Your task to perform on an android device: turn off javascript in the chrome app Image 0: 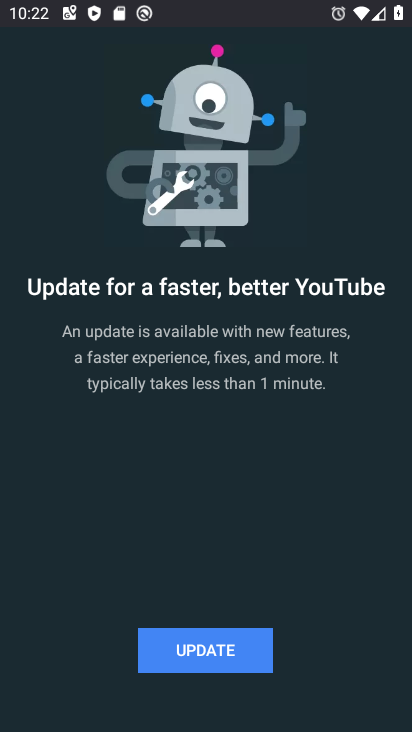
Step 0: press home button
Your task to perform on an android device: turn off javascript in the chrome app Image 1: 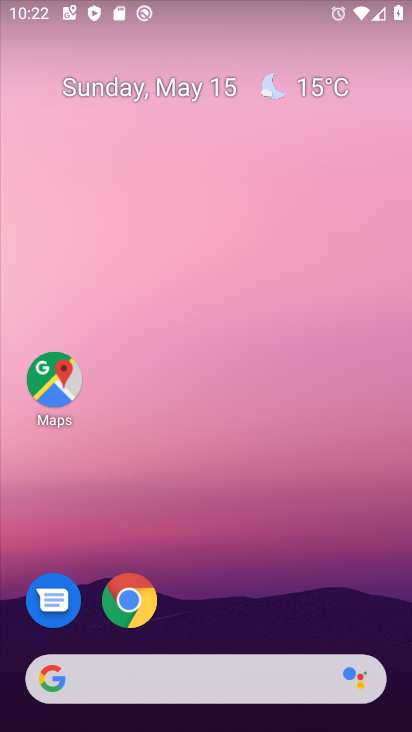
Step 1: drag from (383, 594) to (382, 130)
Your task to perform on an android device: turn off javascript in the chrome app Image 2: 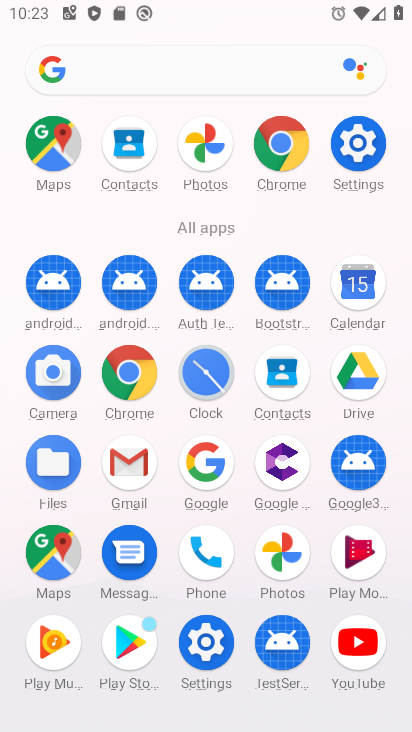
Step 2: click (294, 150)
Your task to perform on an android device: turn off javascript in the chrome app Image 3: 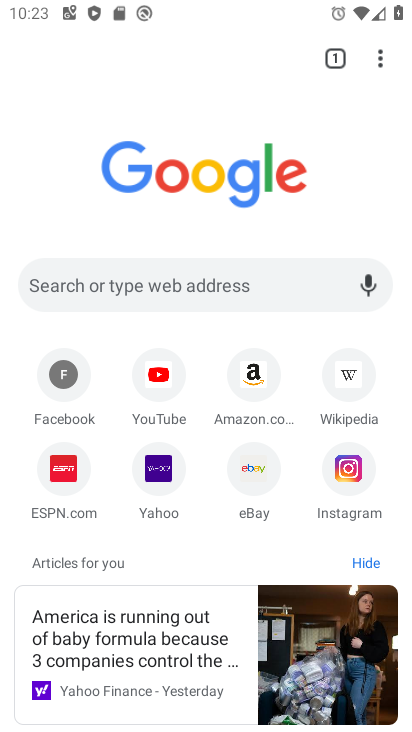
Step 3: click (381, 59)
Your task to perform on an android device: turn off javascript in the chrome app Image 4: 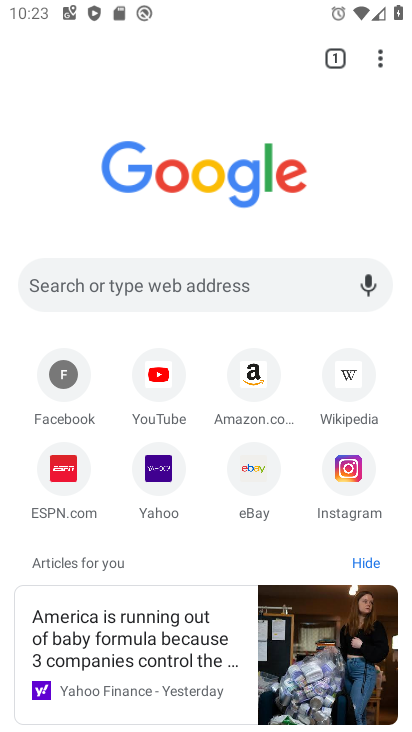
Step 4: click (379, 62)
Your task to perform on an android device: turn off javascript in the chrome app Image 5: 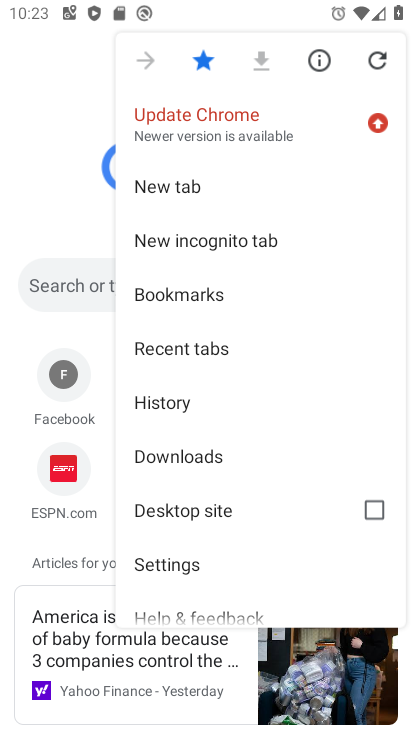
Step 5: click (184, 565)
Your task to perform on an android device: turn off javascript in the chrome app Image 6: 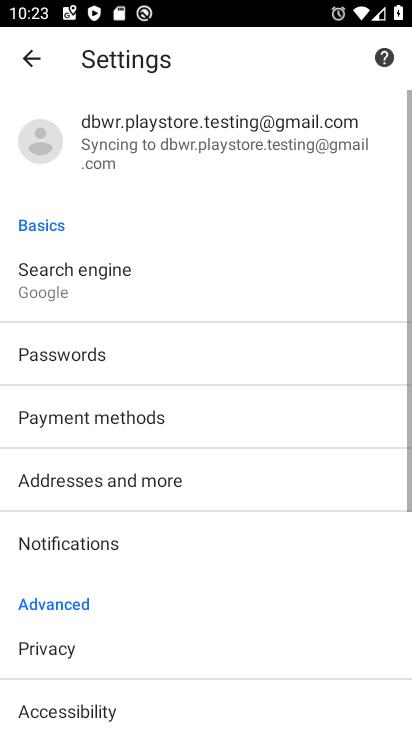
Step 6: drag from (244, 644) to (270, 475)
Your task to perform on an android device: turn off javascript in the chrome app Image 7: 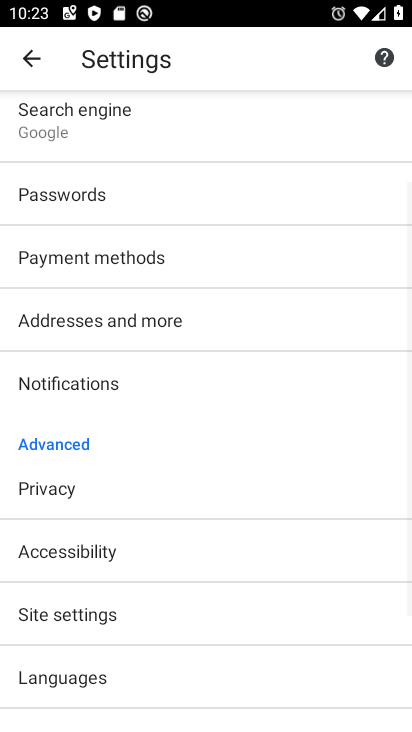
Step 7: drag from (313, 544) to (322, 478)
Your task to perform on an android device: turn off javascript in the chrome app Image 8: 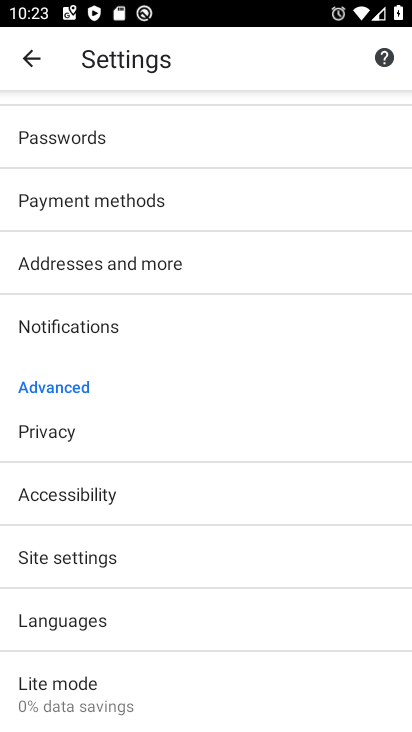
Step 8: drag from (333, 660) to (328, 482)
Your task to perform on an android device: turn off javascript in the chrome app Image 9: 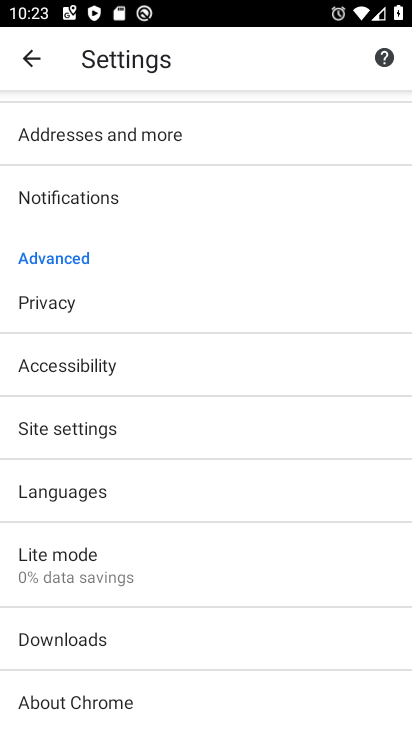
Step 9: drag from (269, 660) to (272, 481)
Your task to perform on an android device: turn off javascript in the chrome app Image 10: 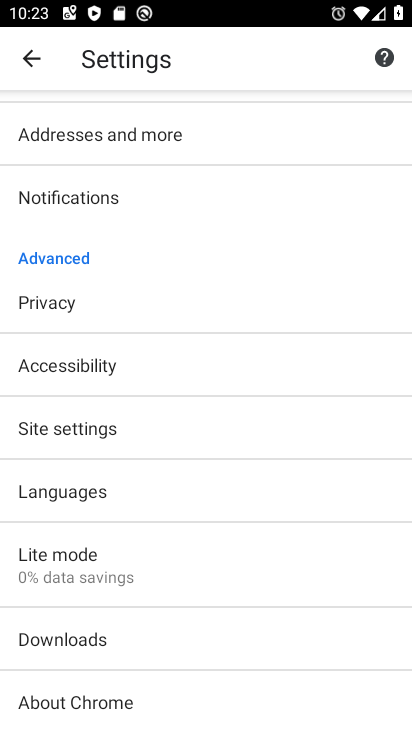
Step 10: click (213, 426)
Your task to perform on an android device: turn off javascript in the chrome app Image 11: 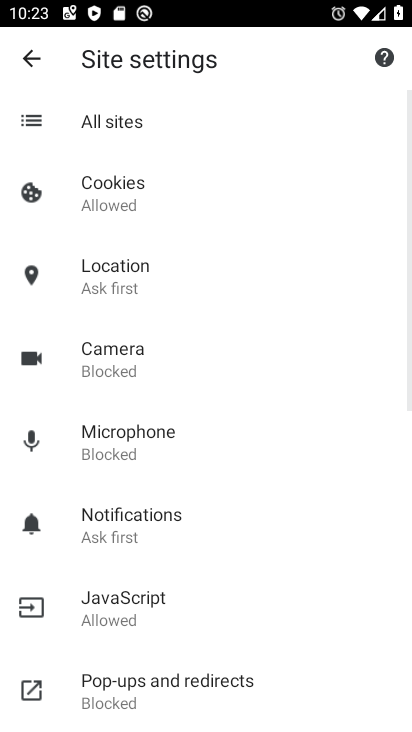
Step 11: drag from (309, 634) to (322, 465)
Your task to perform on an android device: turn off javascript in the chrome app Image 12: 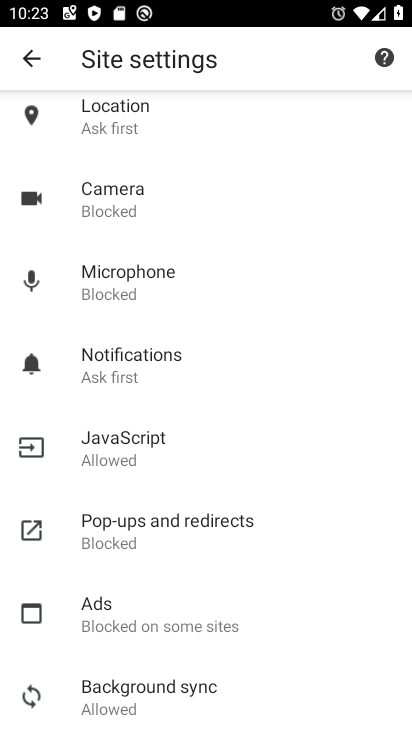
Step 12: drag from (323, 666) to (331, 491)
Your task to perform on an android device: turn off javascript in the chrome app Image 13: 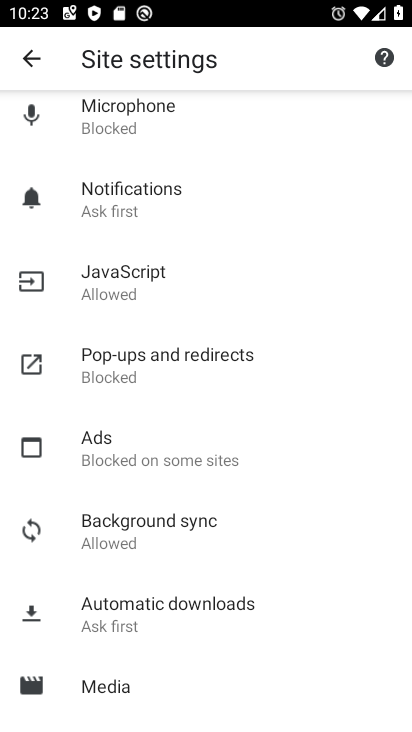
Step 13: drag from (333, 680) to (335, 481)
Your task to perform on an android device: turn off javascript in the chrome app Image 14: 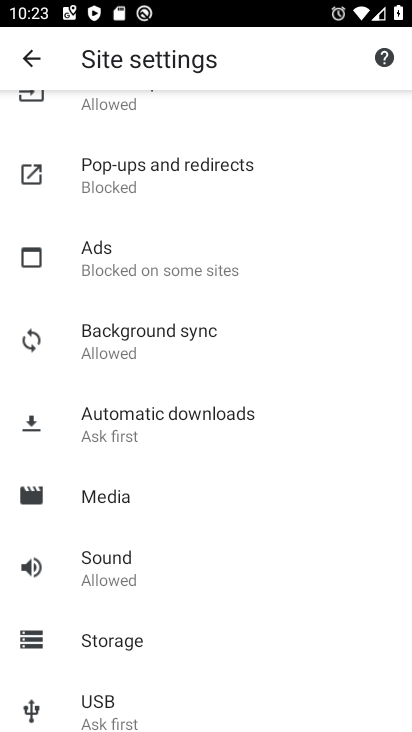
Step 14: drag from (312, 683) to (317, 494)
Your task to perform on an android device: turn off javascript in the chrome app Image 15: 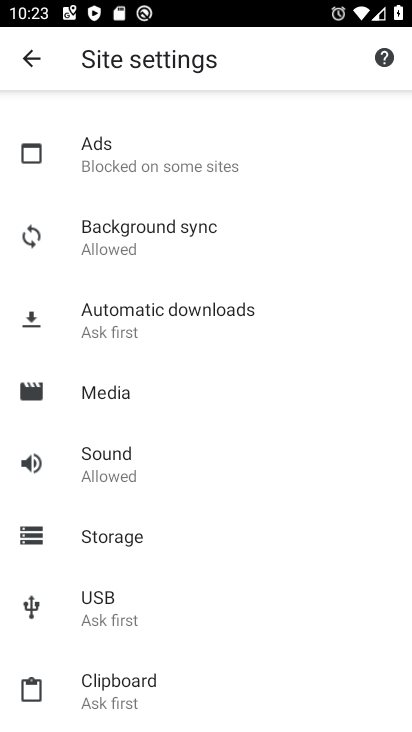
Step 15: drag from (317, 267) to (316, 405)
Your task to perform on an android device: turn off javascript in the chrome app Image 16: 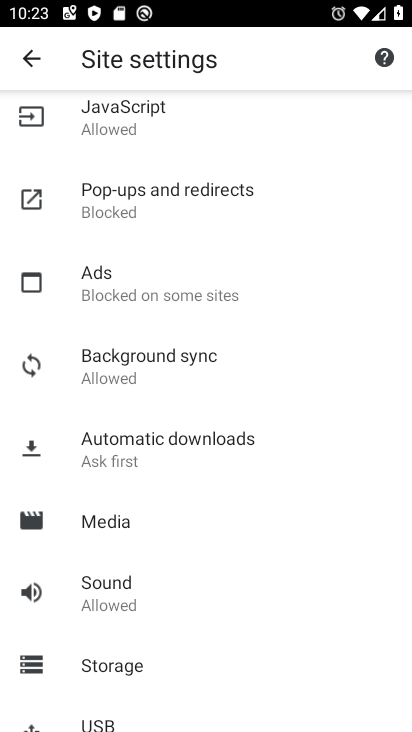
Step 16: drag from (306, 265) to (306, 406)
Your task to perform on an android device: turn off javascript in the chrome app Image 17: 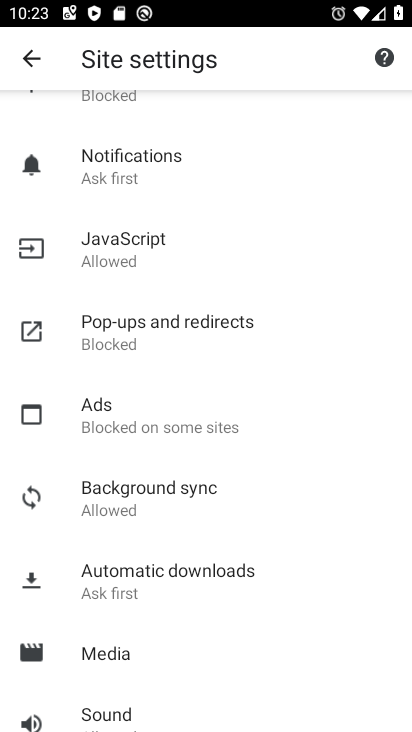
Step 17: drag from (301, 226) to (312, 387)
Your task to perform on an android device: turn off javascript in the chrome app Image 18: 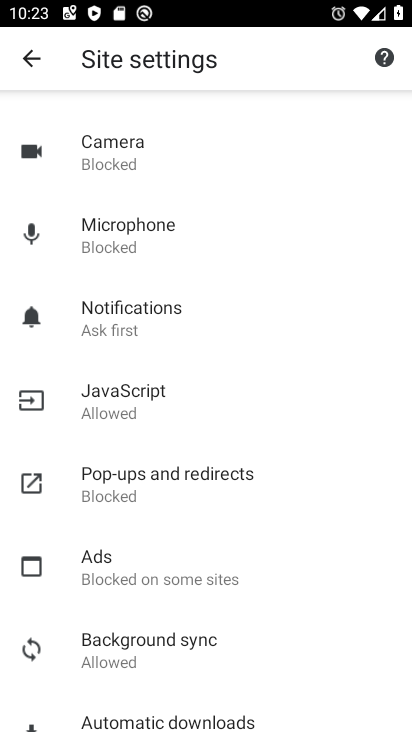
Step 18: click (147, 411)
Your task to perform on an android device: turn off javascript in the chrome app Image 19: 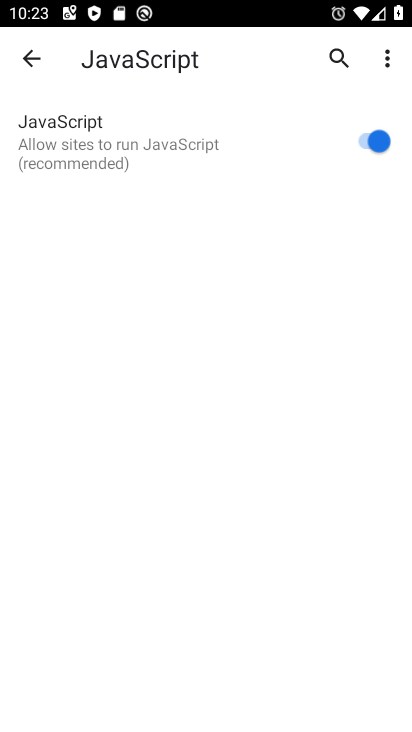
Step 19: click (383, 149)
Your task to perform on an android device: turn off javascript in the chrome app Image 20: 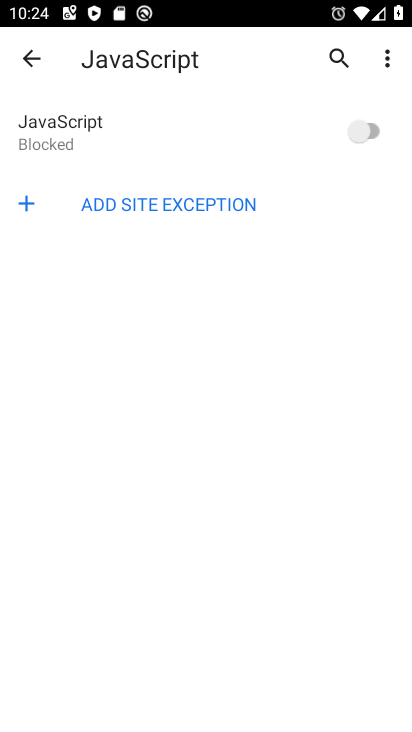
Step 20: task complete